Your task to perform on an android device: change your default location settings in chrome Image 0: 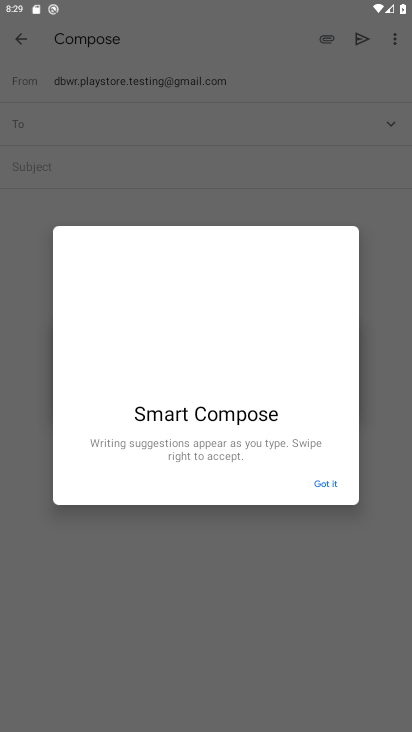
Step 0: press home button
Your task to perform on an android device: change your default location settings in chrome Image 1: 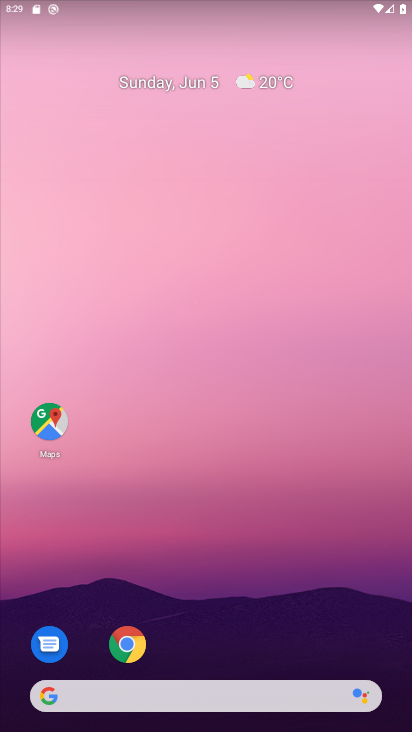
Step 1: drag from (324, 632) to (320, 201)
Your task to perform on an android device: change your default location settings in chrome Image 2: 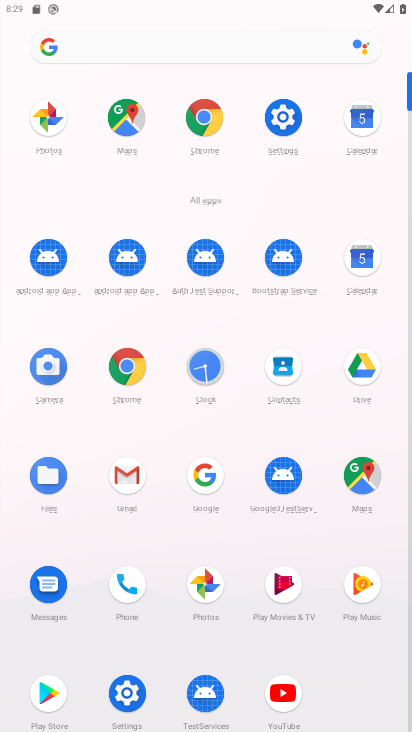
Step 2: click (128, 375)
Your task to perform on an android device: change your default location settings in chrome Image 3: 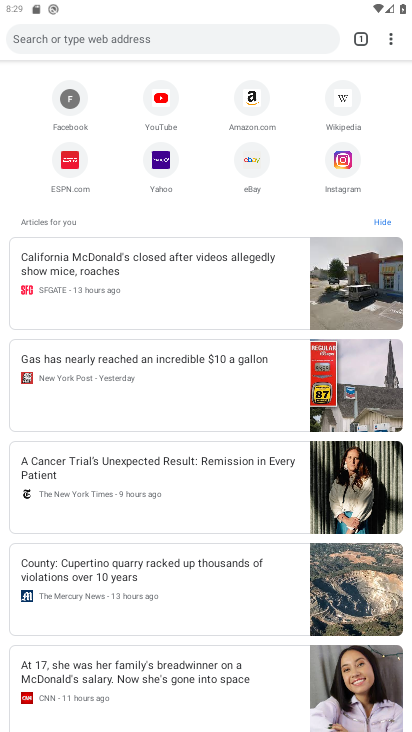
Step 3: drag from (391, 45) to (261, 330)
Your task to perform on an android device: change your default location settings in chrome Image 4: 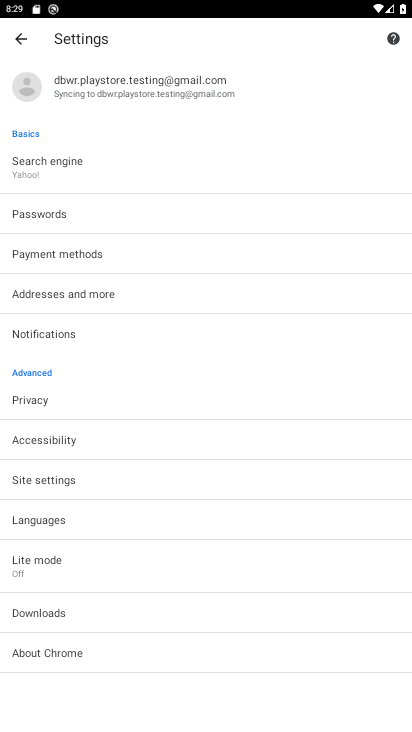
Step 4: click (74, 467)
Your task to perform on an android device: change your default location settings in chrome Image 5: 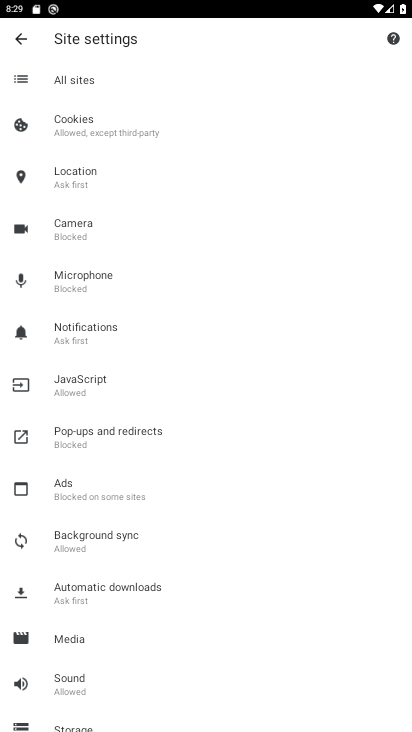
Step 5: click (86, 178)
Your task to perform on an android device: change your default location settings in chrome Image 6: 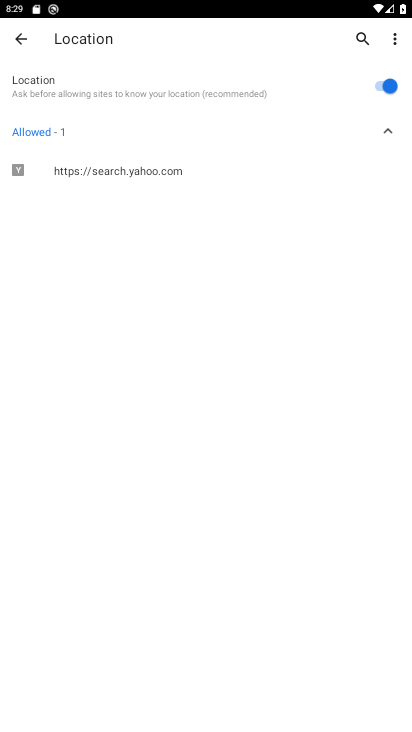
Step 6: click (150, 165)
Your task to perform on an android device: change your default location settings in chrome Image 7: 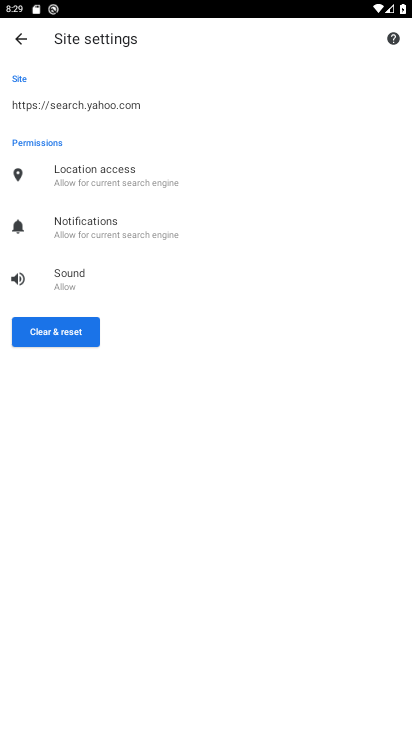
Step 7: click (123, 234)
Your task to perform on an android device: change your default location settings in chrome Image 8: 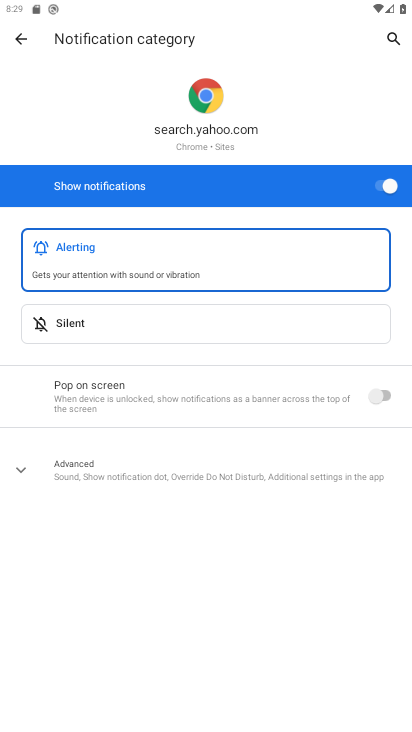
Step 8: click (375, 184)
Your task to perform on an android device: change your default location settings in chrome Image 9: 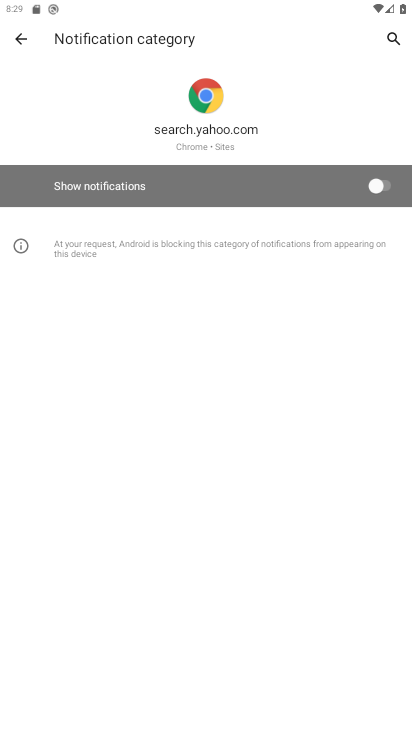
Step 9: task complete